Your task to perform on an android device: Go to Amazon Image 0: 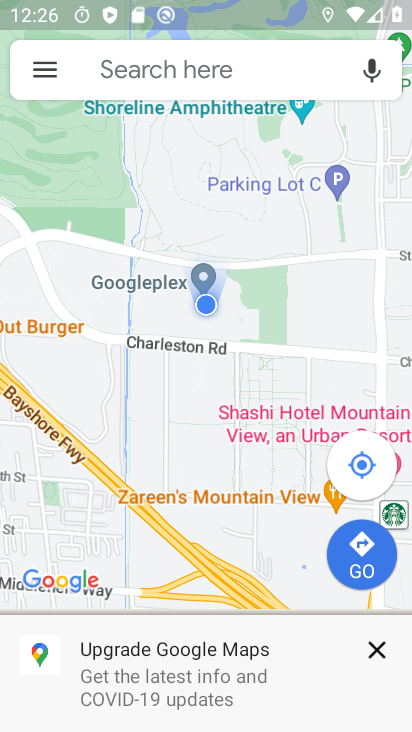
Step 0: press back button
Your task to perform on an android device: Go to Amazon Image 1: 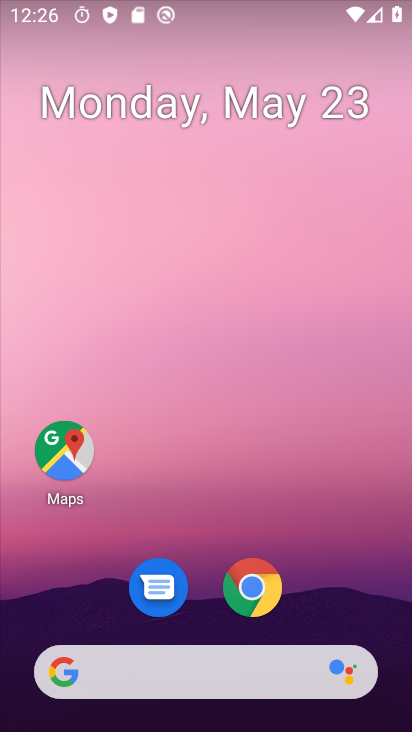
Step 1: click (253, 583)
Your task to perform on an android device: Go to Amazon Image 2: 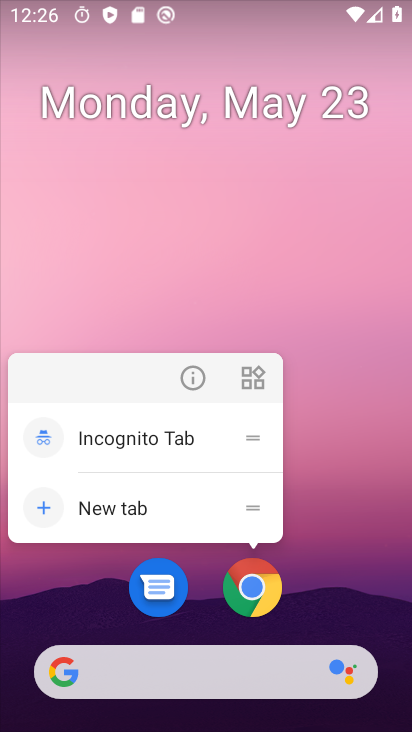
Step 2: click (244, 586)
Your task to perform on an android device: Go to Amazon Image 3: 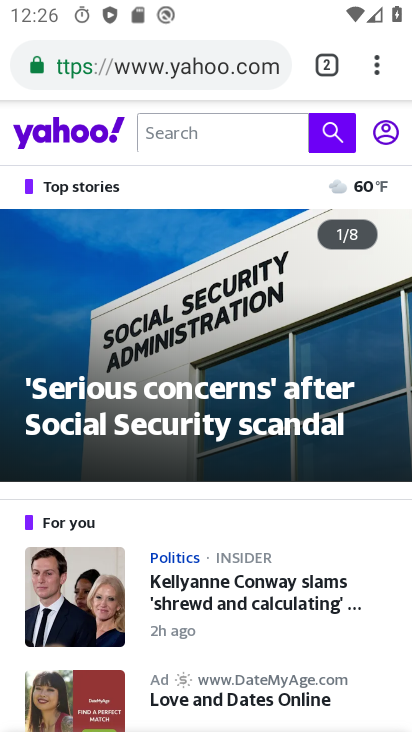
Step 3: click (333, 76)
Your task to perform on an android device: Go to Amazon Image 4: 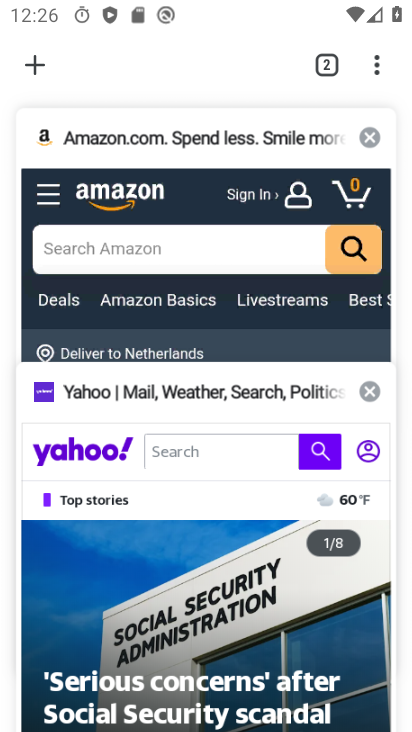
Step 4: click (131, 130)
Your task to perform on an android device: Go to Amazon Image 5: 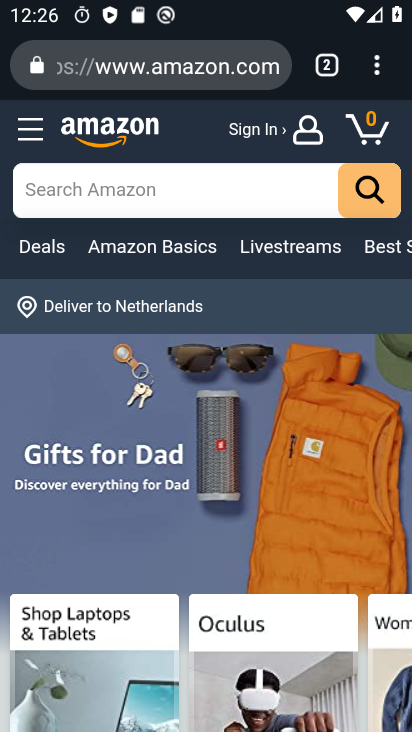
Step 5: task complete